Your task to perform on an android device: toggle airplane mode Image 0: 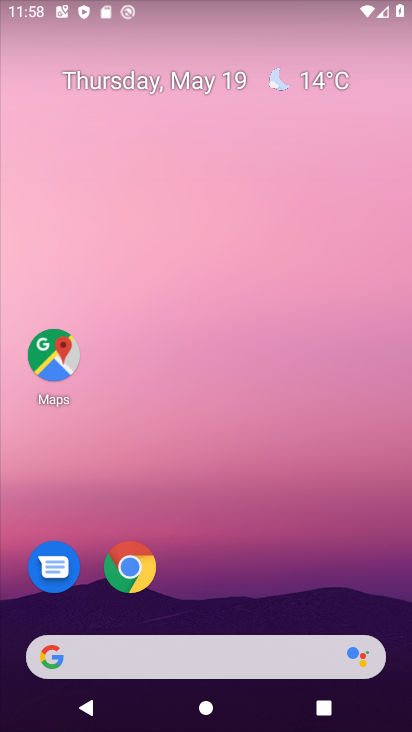
Step 0: drag from (351, 503) to (382, 130)
Your task to perform on an android device: toggle airplane mode Image 1: 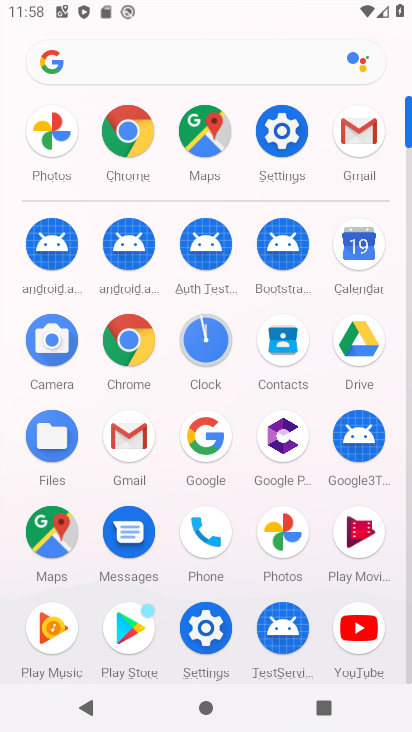
Step 1: click (284, 137)
Your task to perform on an android device: toggle airplane mode Image 2: 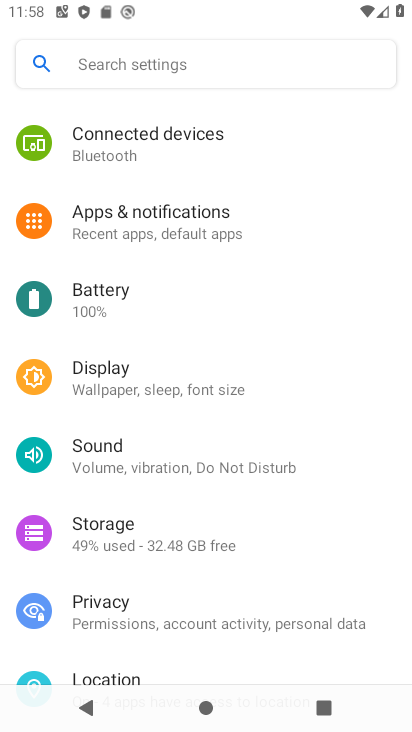
Step 2: drag from (228, 232) to (311, 658)
Your task to perform on an android device: toggle airplane mode Image 3: 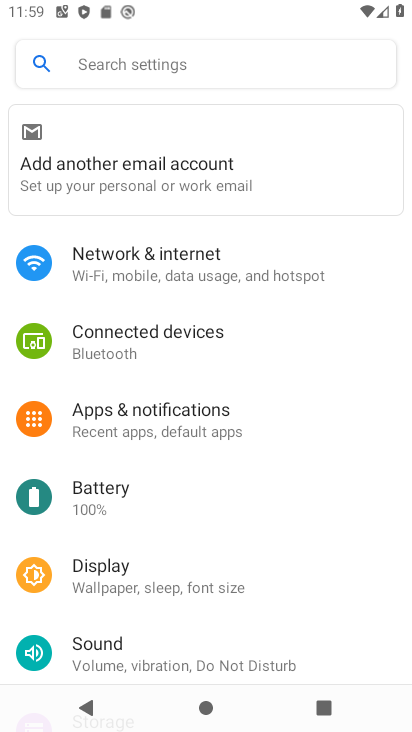
Step 3: click (209, 274)
Your task to perform on an android device: toggle airplane mode Image 4: 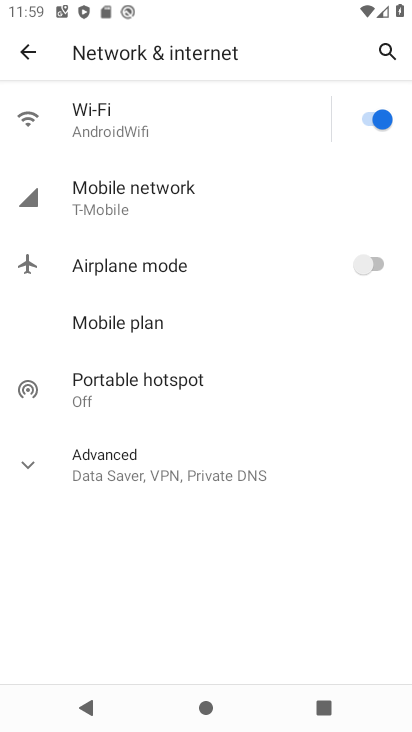
Step 4: click (146, 272)
Your task to perform on an android device: toggle airplane mode Image 5: 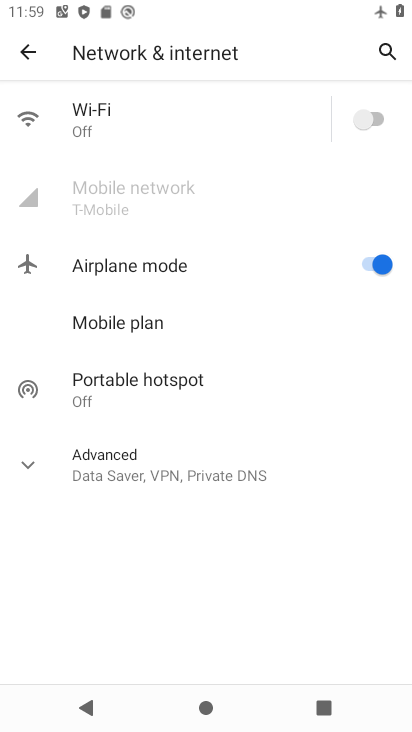
Step 5: task complete